Your task to perform on an android device: refresh tabs in the chrome app Image 0: 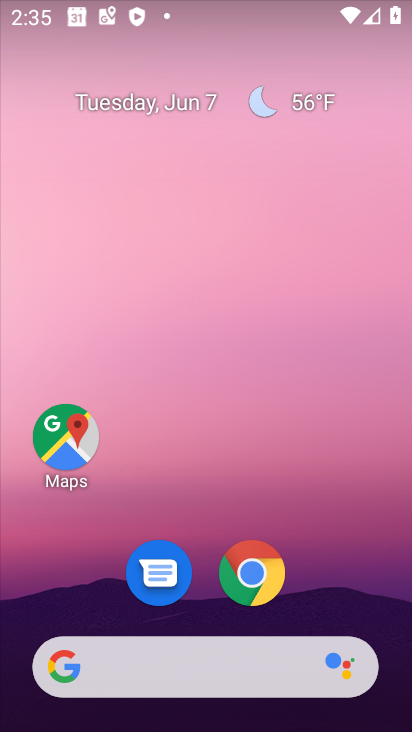
Step 0: click (256, 577)
Your task to perform on an android device: refresh tabs in the chrome app Image 1: 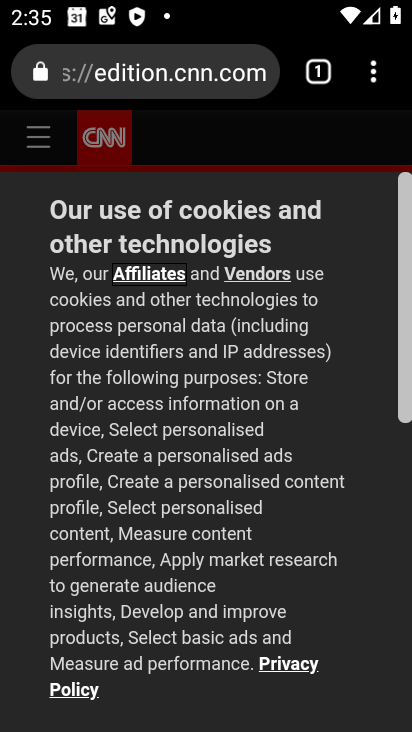
Step 1: click (373, 52)
Your task to perform on an android device: refresh tabs in the chrome app Image 2: 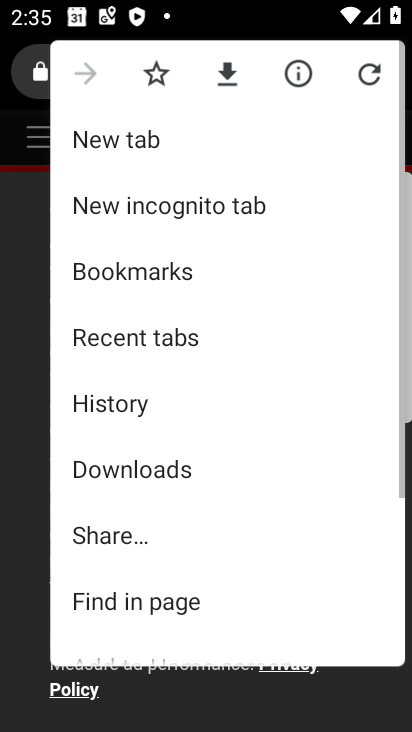
Step 2: click (370, 62)
Your task to perform on an android device: refresh tabs in the chrome app Image 3: 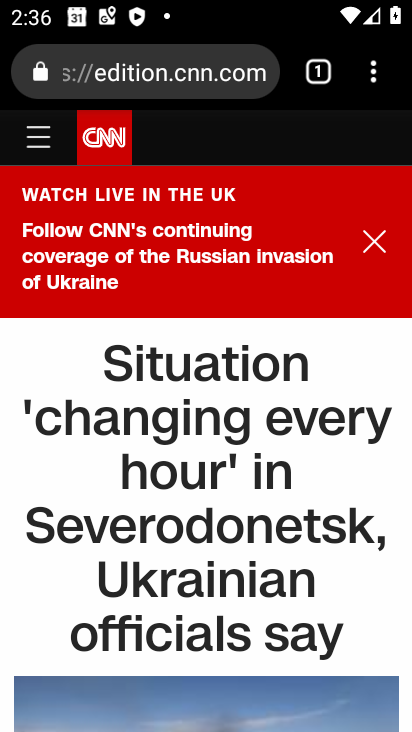
Step 3: task complete